Your task to perform on an android device: toggle notifications settings in the gmail app Image 0: 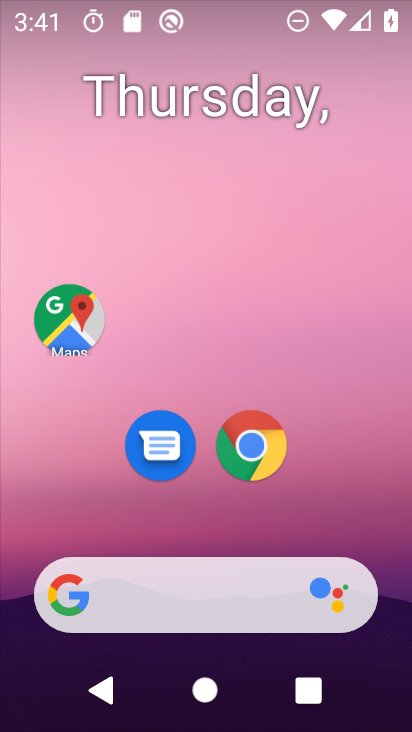
Step 0: drag from (350, 484) to (271, 138)
Your task to perform on an android device: toggle notifications settings in the gmail app Image 1: 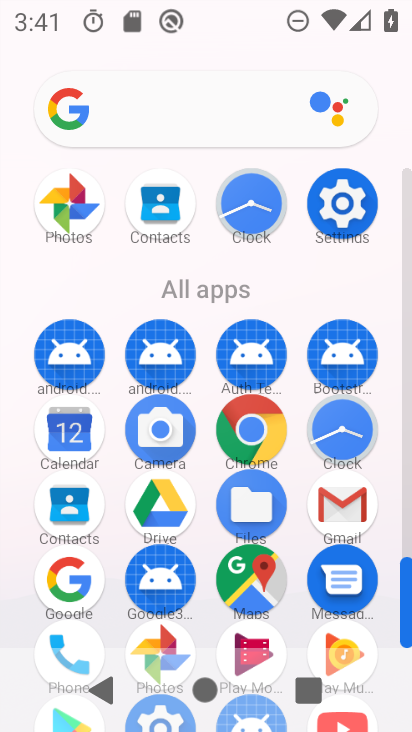
Step 1: click (338, 499)
Your task to perform on an android device: toggle notifications settings in the gmail app Image 2: 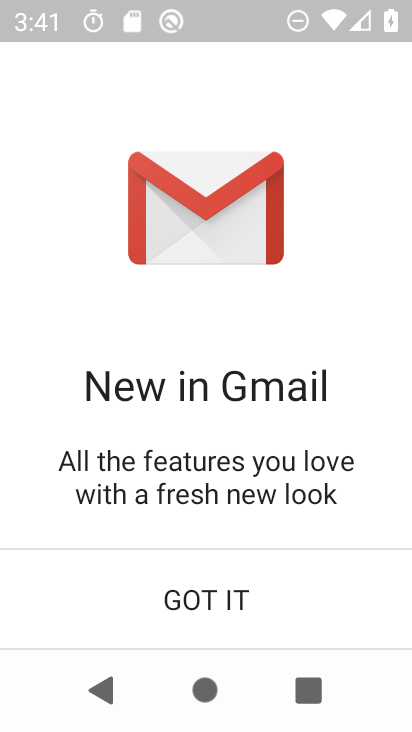
Step 2: click (198, 604)
Your task to perform on an android device: toggle notifications settings in the gmail app Image 3: 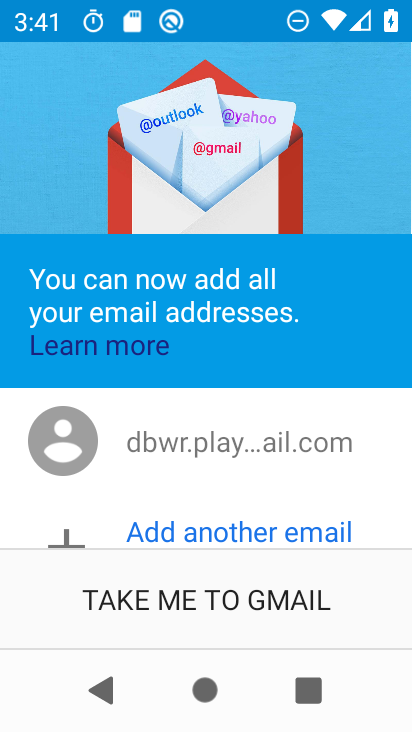
Step 3: click (198, 604)
Your task to perform on an android device: toggle notifications settings in the gmail app Image 4: 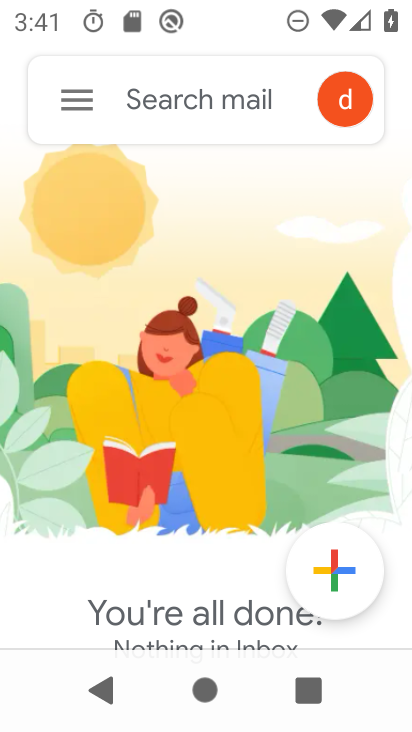
Step 4: click (73, 97)
Your task to perform on an android device: toggle notifications settings in the gmail app Image 5: 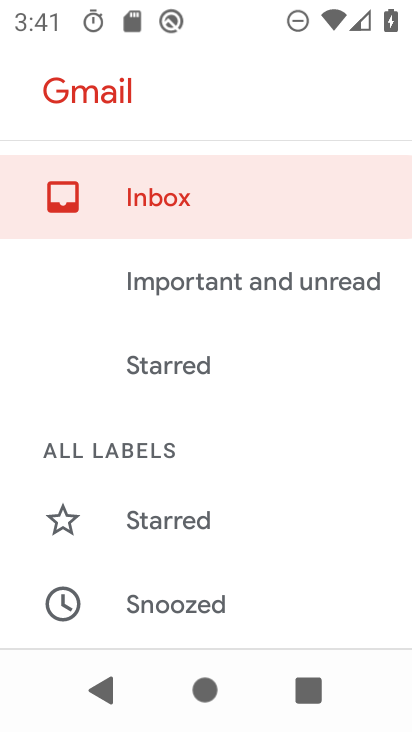
Step 5: drag from (177, 470) to (202, 329)
Your task to perform on an android device: toggle notifications settings in the gmail app Image 6: 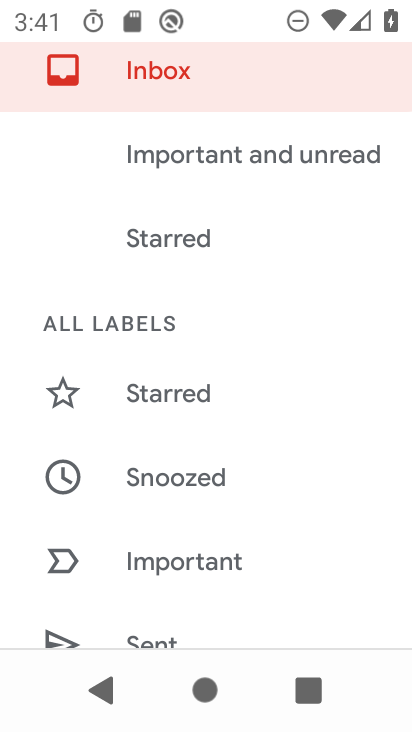
Step 6: drag from (176, 511) to (211, 378)
Your task to perform on an android device: toggle notifications settings in the gmail app Image 7: 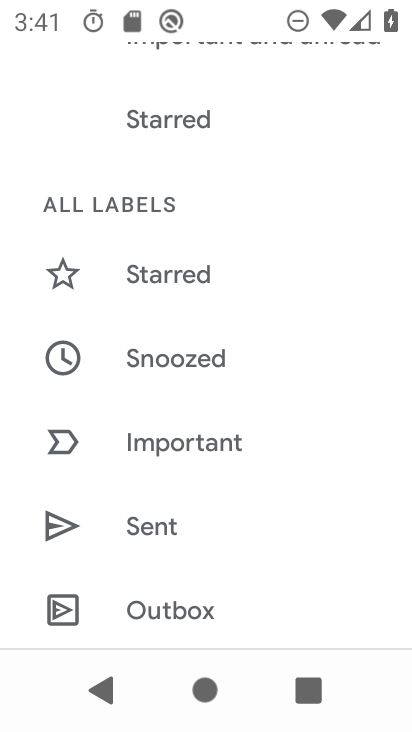
Step 7: drag from (168, 552) to (209, 405)
Your task to perform on an android device: toggle notifications settings in the gmail app Image 8: 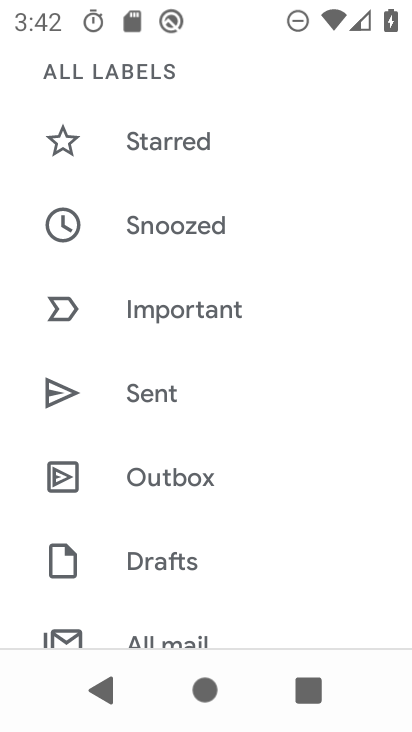
Step 8: drag from (143, 595) to (224, 443)
Your task to perform on an android device: toggle notifications settings in the gmail app Image 9: 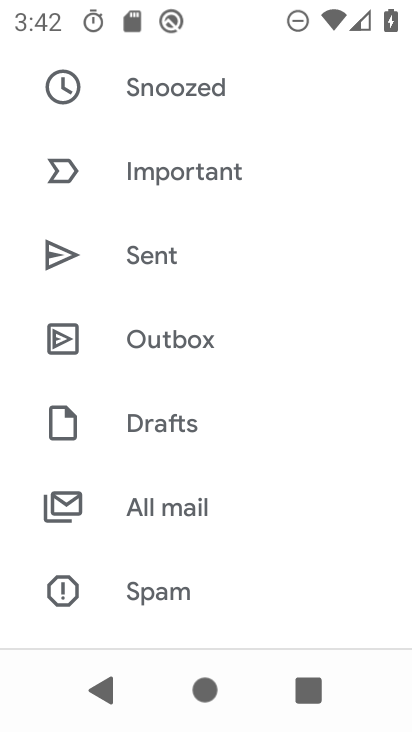
Step 9: drag from (174, 543) to (248, 413)
Your task to perform on an android device: toggle notifications settings in the gmail app Image 10: 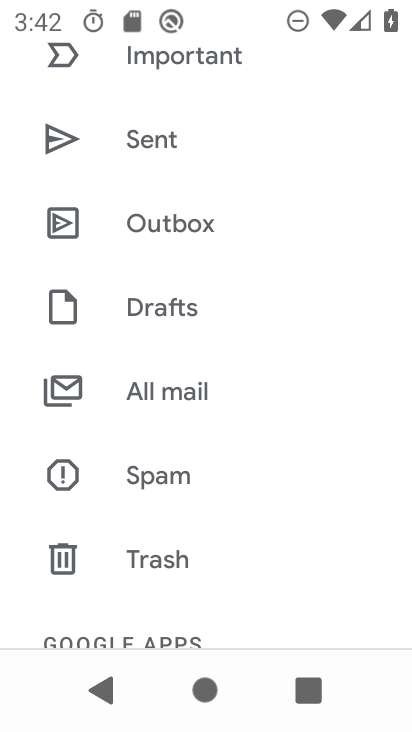
Step 10: drag from (171, 538) to (278, 409)
Your task to perform on an android device: toggle notifications settings in the gmail app Image 11: 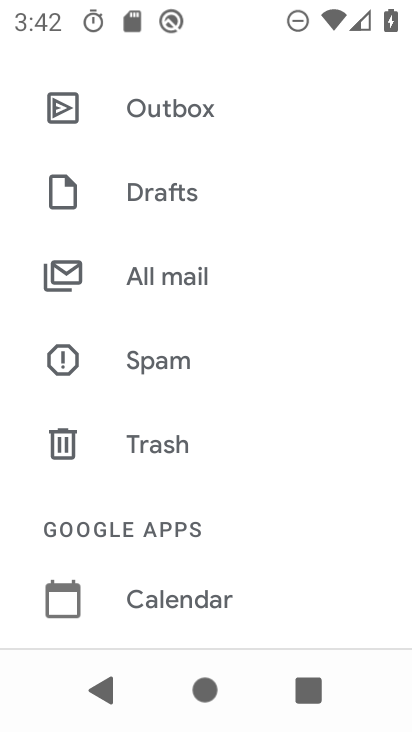
Step 11: drag from (156, 556) to (232, 428)
Your task to perform on an android device: toggle notifications settings in the gmail app Image 12: 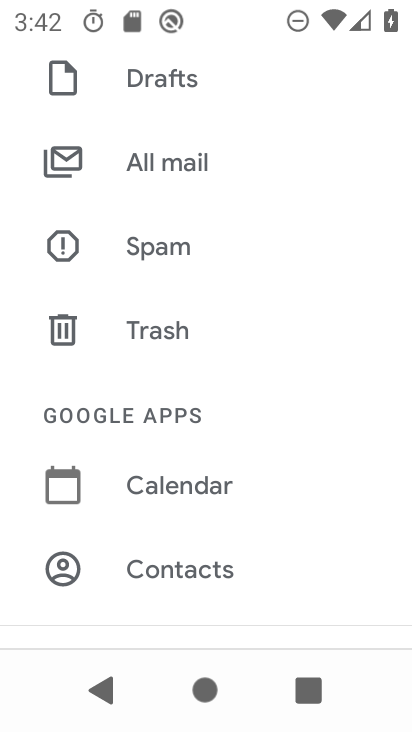
Step 12: drag from (162, 523) to (254, 363)
Your task to perform on an android device: toggle notifications settings in the gmail app Image 13: 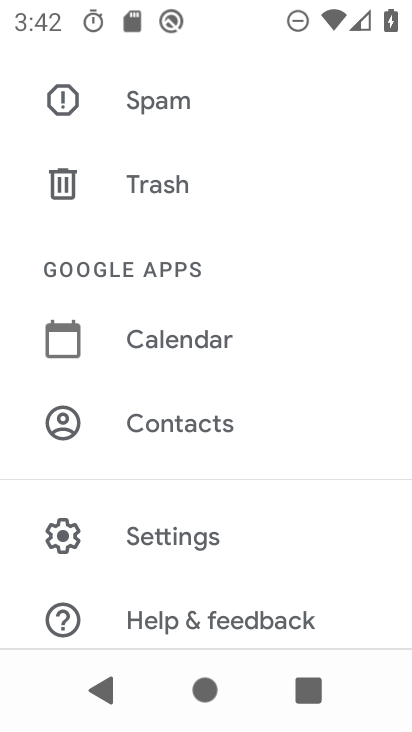
Step 13: click (177, 532)
Your task to perform on an android device: toggle notifications settings in the gmail app Image 14: 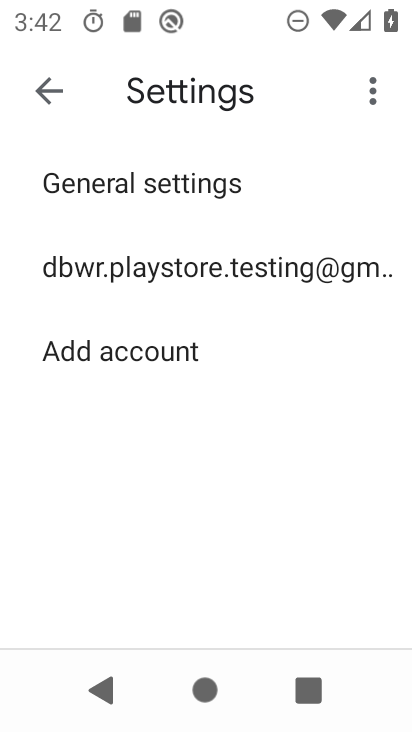
Step 14: click (188, 270)
Your task to perform on an android device: toggle notifications settings in the gmail app Image 15: 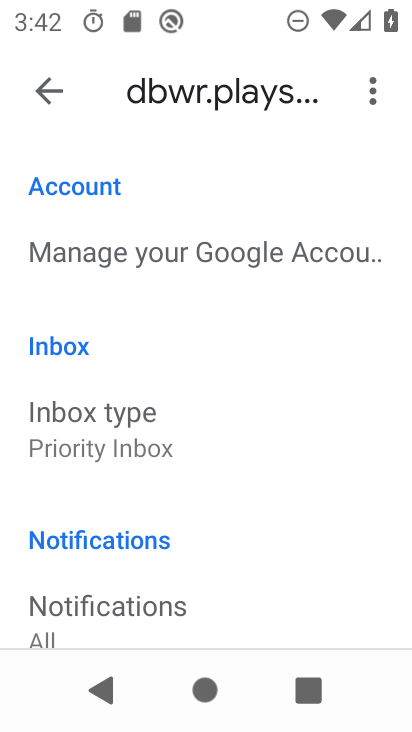
Step 15: drag from (204, 492) to (266, 369)
Your task to perform on an android device: toggle notifications settings in the gmail app Image 16: 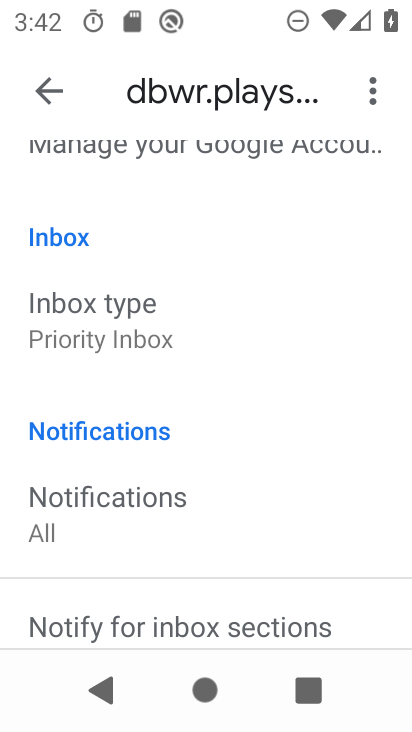
Step 16: drag from (204, 503) to (318, 349)
Your task to perform on an android device: toggle notifications settings in the gmail app Image 17: 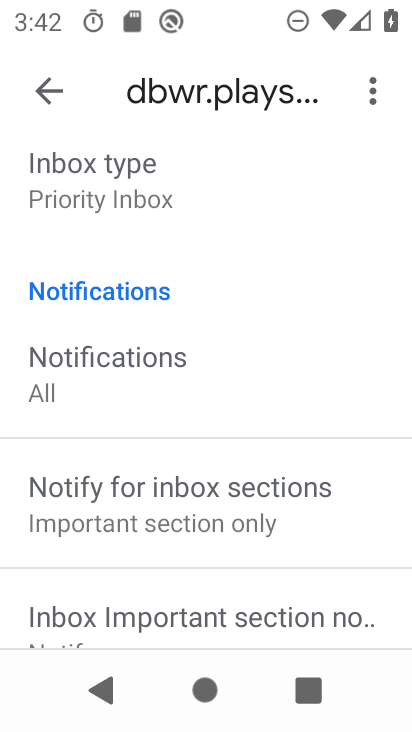
Step 17: drag from (200, 535) to (264, 428)
Your task to perform on an android device: toggle notifications settings in the gmail app Image 18: 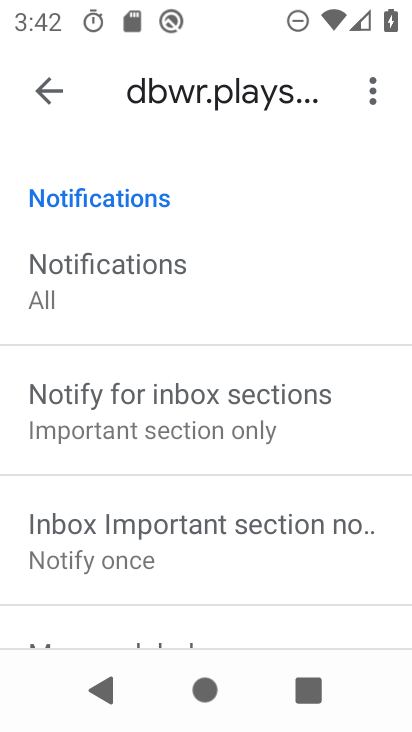
Step 18: drag from (180, 573) to (283, 427)
Your task to perform on an android device: toggle notifications settings in the gmail app Image 19: 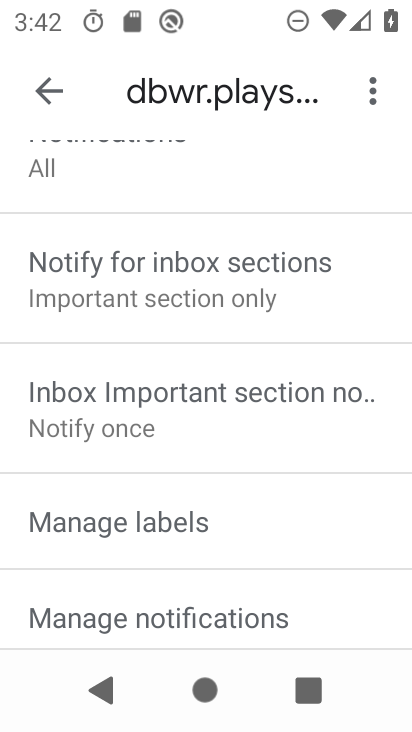
Step 19: drag from (205, 552) to (319, 393)
Your task to perform on an android device: toggle notifications settings in the gmail app Image 20: 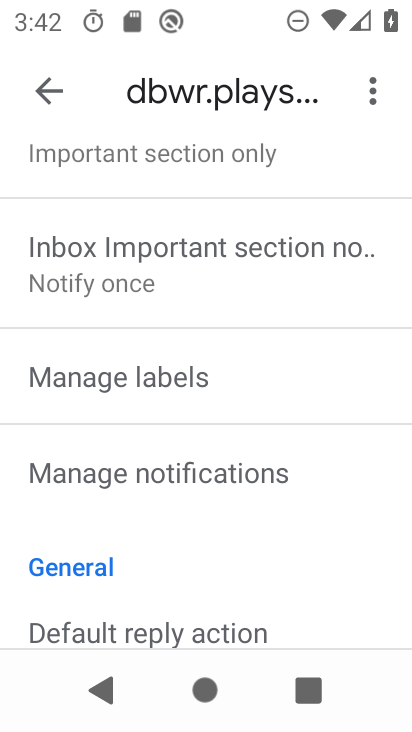
Step 20: click (234, 471)
Your task to perform on an android device: toggle notifications settings in the gmail app Image 21: 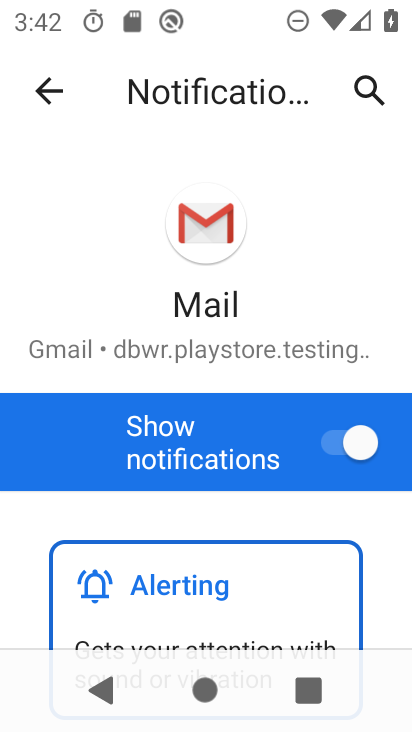
Step 21: click (356, 443)
Your task to perform on an android device: toggle notifications settings in the gmail app Image 22: 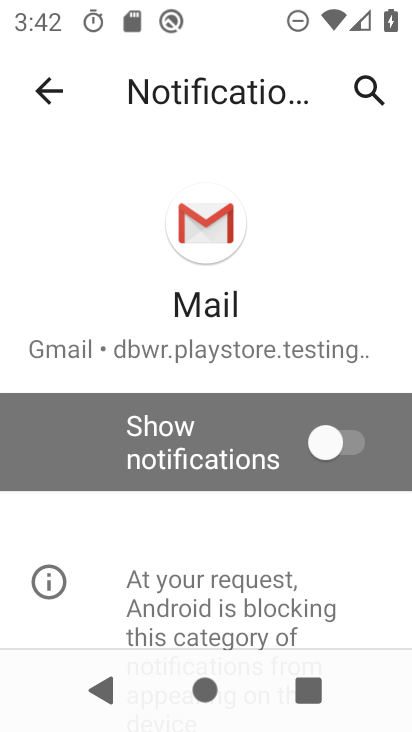
Step 22: task complete